Your task to perform on an android device: empty trash in google photos Image 0: 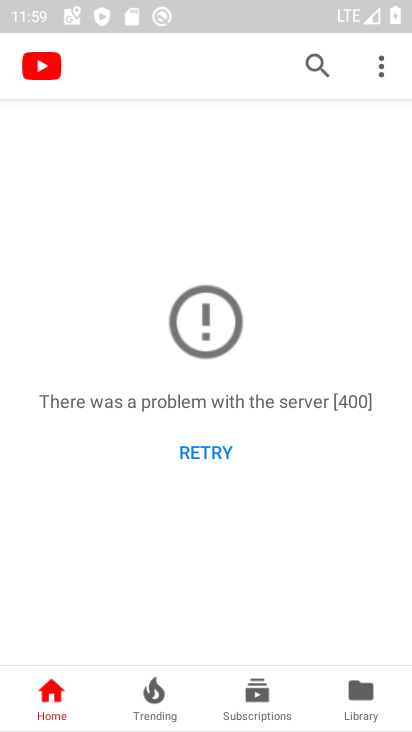
Step 0: drag from (198, 638) to (221, 340)
Your task to perform on an android device: empty trash in google photos Image 1: 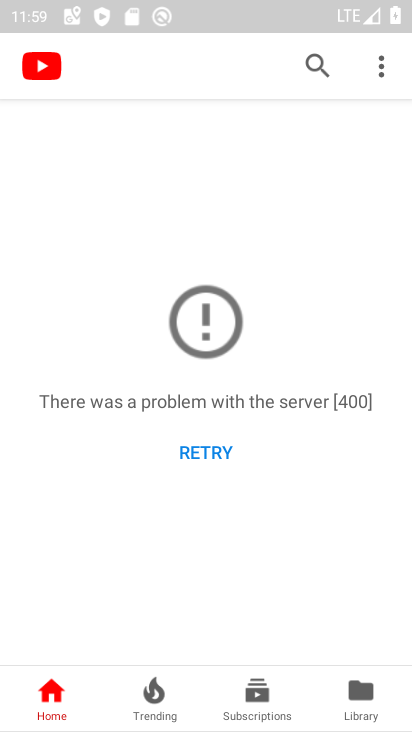
Step 1: drag from (254, 560) to (258, 412)
Your task to perform on an android device: empty trash in google photos Image 2: 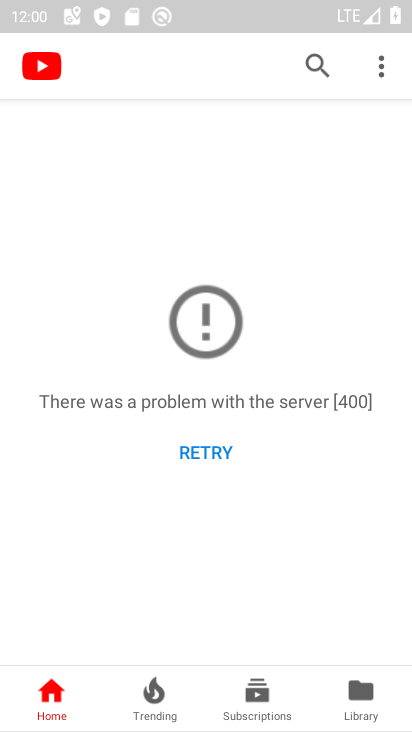
Step 2: press home button
Your task to perform on an android device: empty trash in google photos Image 3: 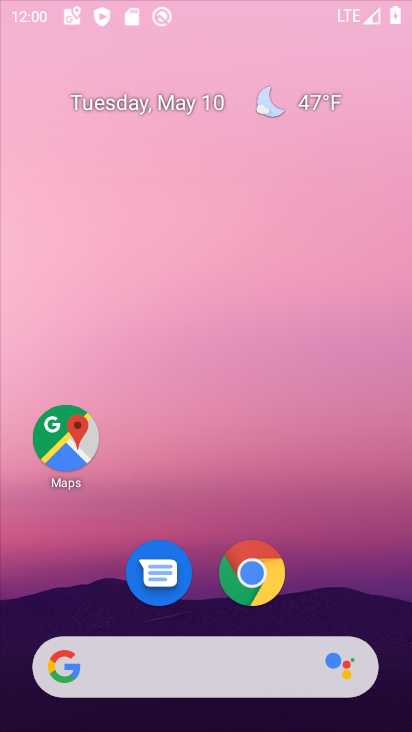
Step 3: drag from (216, 631) to (182, 242)
Your task to perform on an android device: empty trash in google photos Image 4: 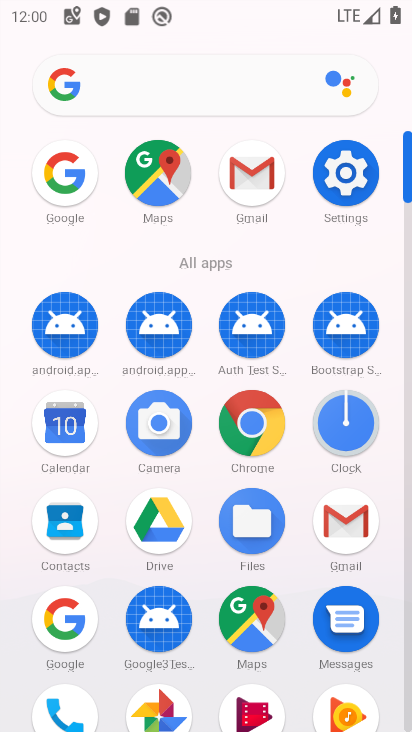
Step 4: click (148, 702)
Your task to perform on an android device: empty trash in google photos Image 5: 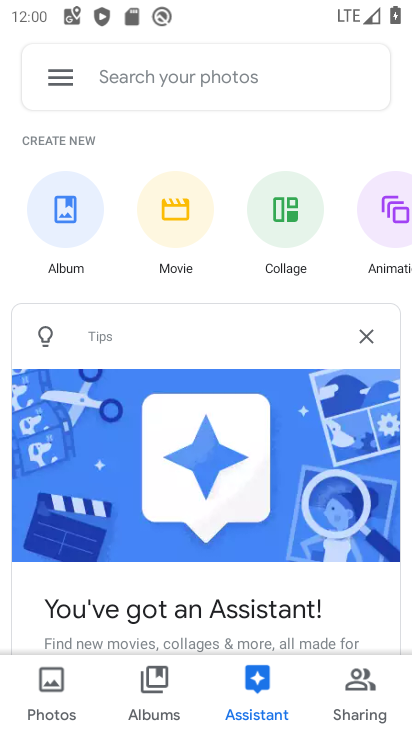
Step 5: click (64, 70)
Your task to perform on an android device: empty trash in google photos Image 6: 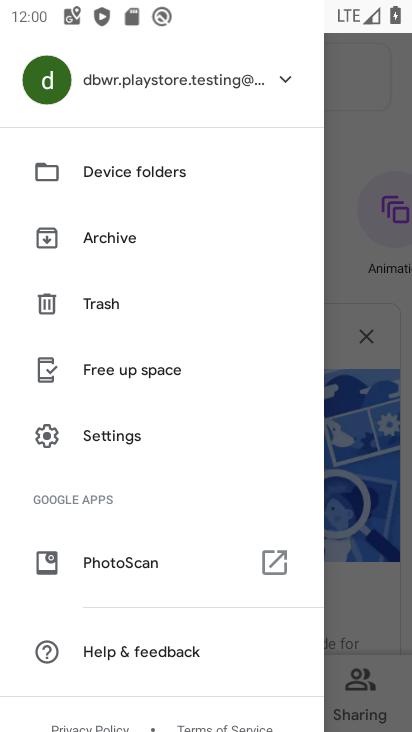
Step 6: click (93, 311)
Your task to perform on an android device: empty trash in google photos Image 7: 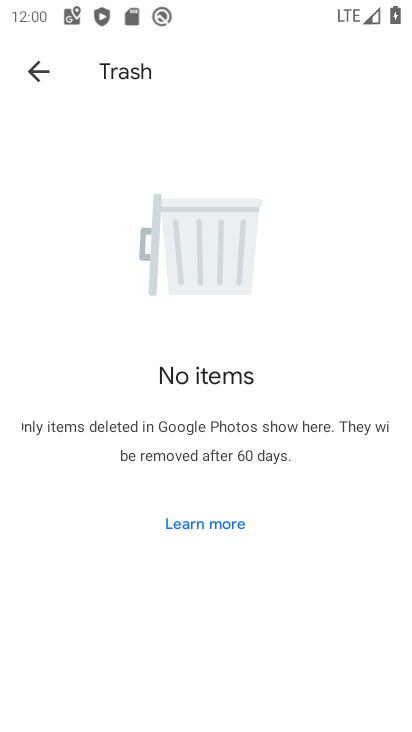
Step 7: task complete